Your task to perform on an android device: Show me popular games on the Play Store Image 0: 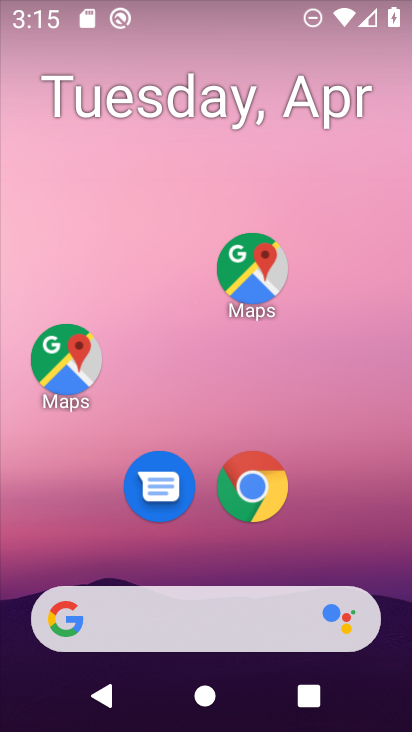
Step 0: drag from (205, 543) to (238, 221)
Your task to perform on an android device: Show me popular games on the Play Store Image 1: 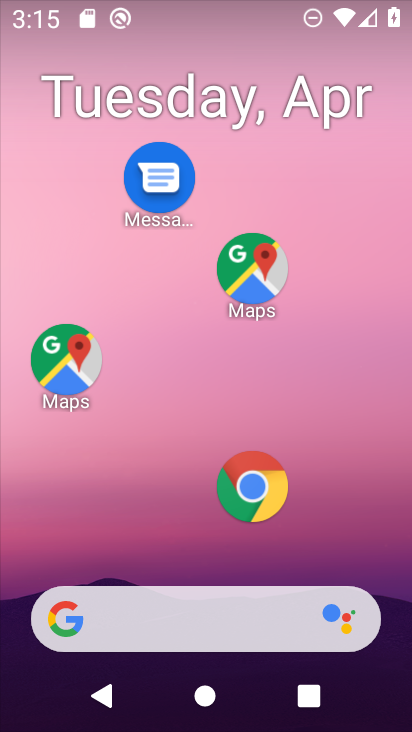
Step 1: drag from (172, 553) to (201, 157)
Your task to perform on an android device: Show me popular games on the Play Store Image 2: 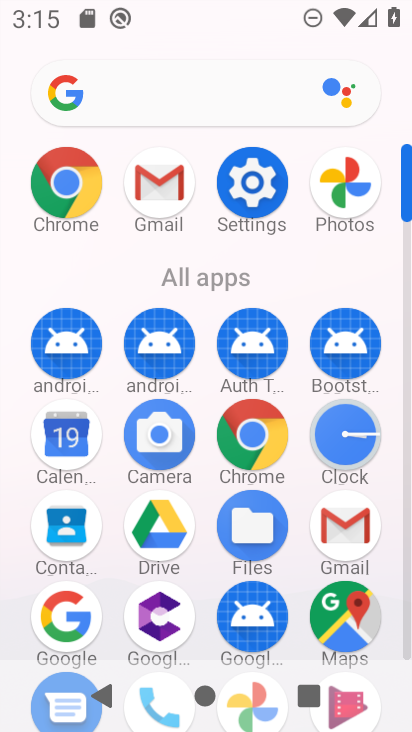
Step 2: drag from (209, 548) to (209, 222)
Your task to perform on an android device: Show me popular games on the Play Store Image 3: 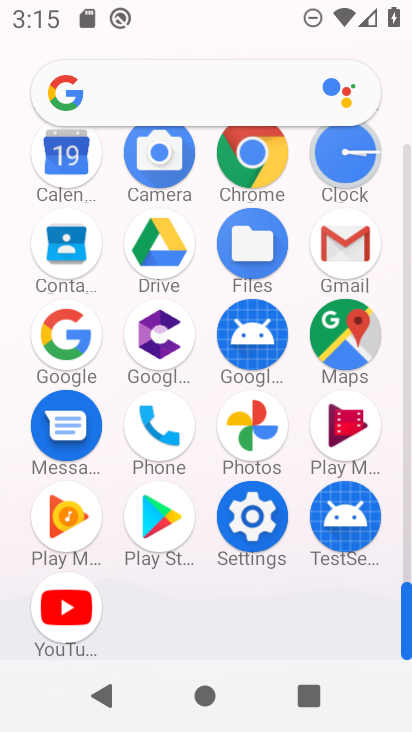
Step 3: click (167, 520)
Your task to perform on an android device: Show me popular games on the Play Store Image 4: 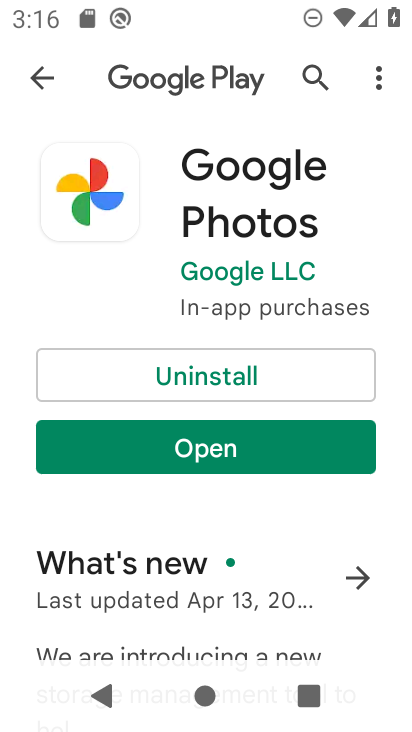
Step 4: click (50, 85)
Your task to perform on an android device: Show me popular games on the Play Store Image 5: 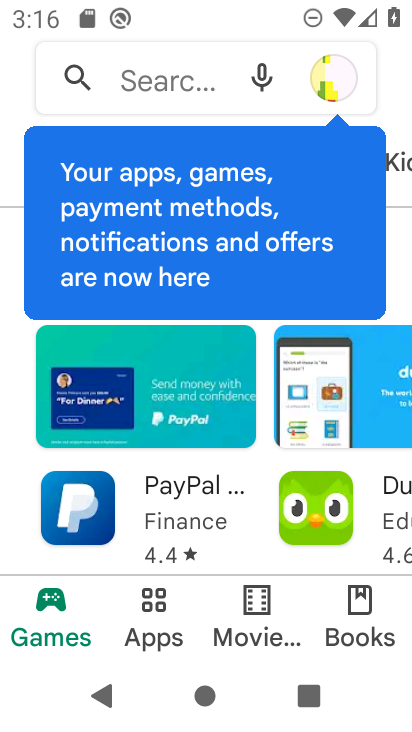
Step 5: drag from (186, 531) to (190, 581)
Your task to perform on an android device: Show me popular games on the Play Store Image 6: 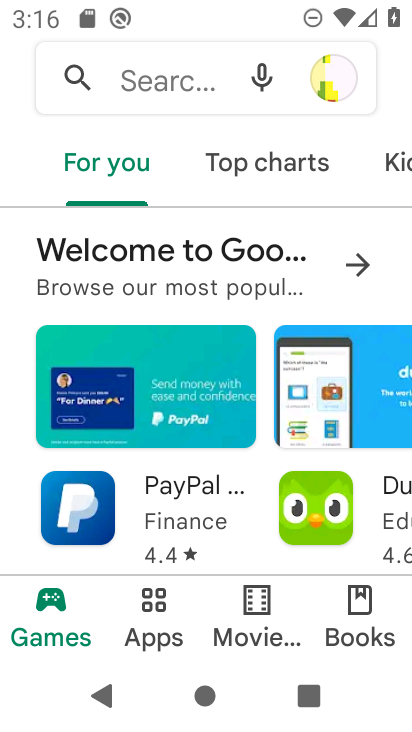
Step 6: click (167, 627)
Your task to perform on an android device: Show me popular games on the Play Store Image 7: 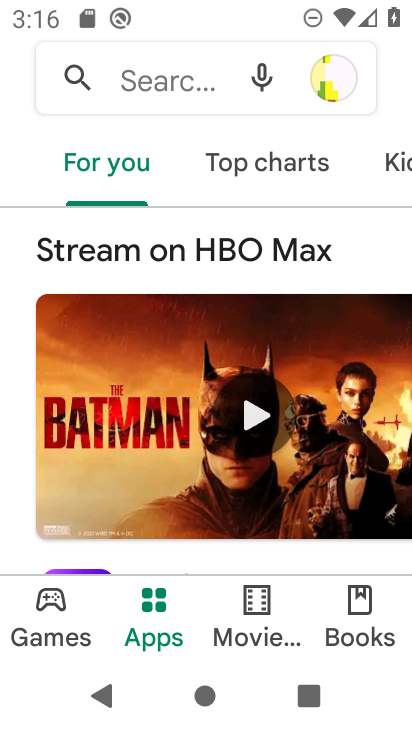
Step 7: drag from (349, 171) to (121, 207)
Your task to perform on an android device: Show me popular games on the Play Store Image 8: 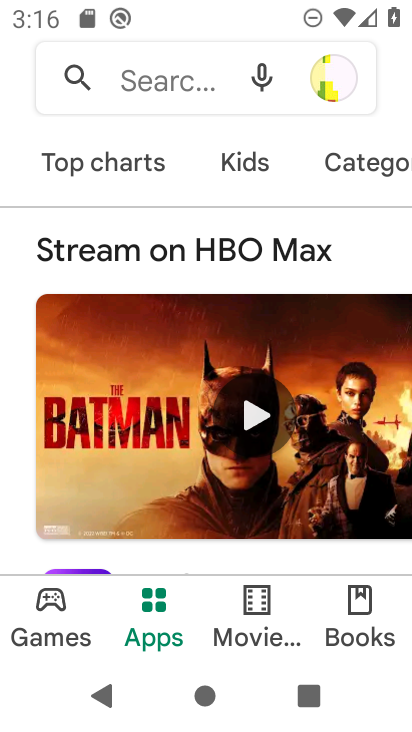
Step 8: click (120, 178)
Your task to perform on an android device: Show me popular games on the Play Store Image 9: 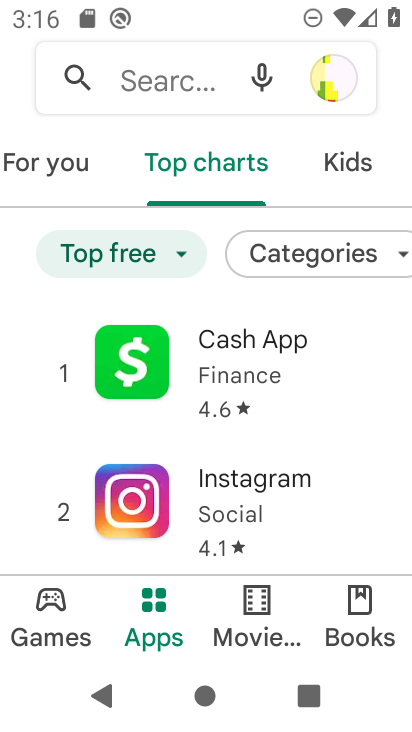
Step 9: task complete